Your task to perform on an android device: add a label to a message in the gmail app Image 0: 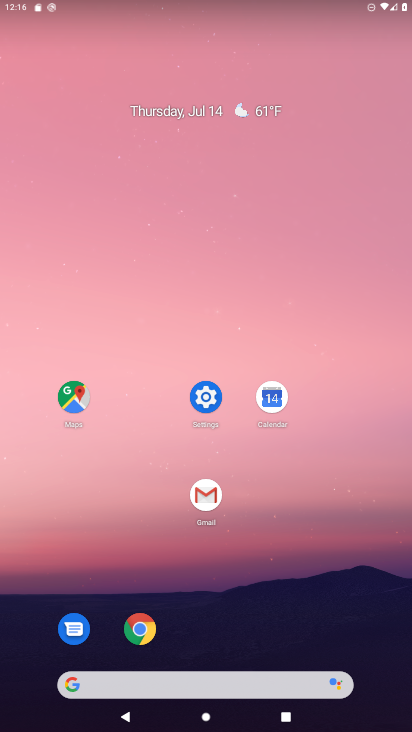
Step 0: click (200, 501)
Your task to perform on an android device: add a label to a message in the gmail app Image 1: 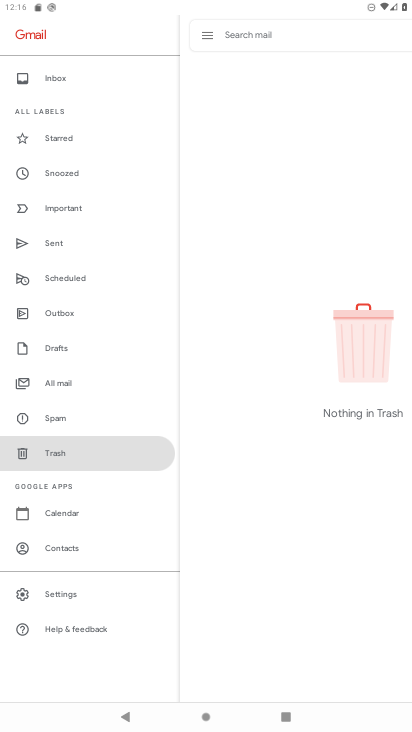
Step 1: task complete